Your task to perform on an android device: open chrome and create a bookmark for the current page Image 0: 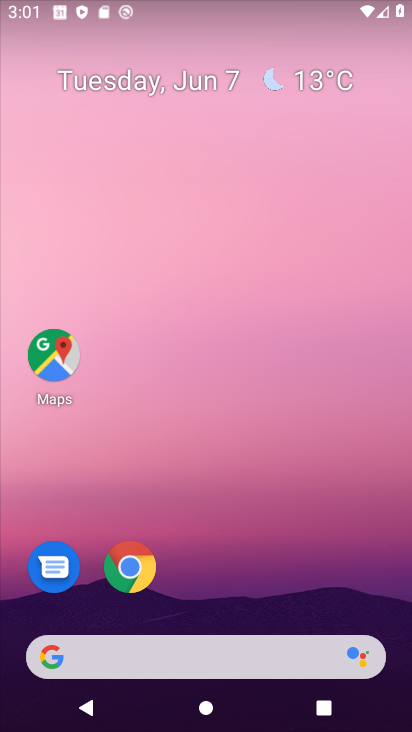
Step 0: click (139, 573)
Your task to perform on an android device: open chrome and create a bookmark for the current page Image 1: 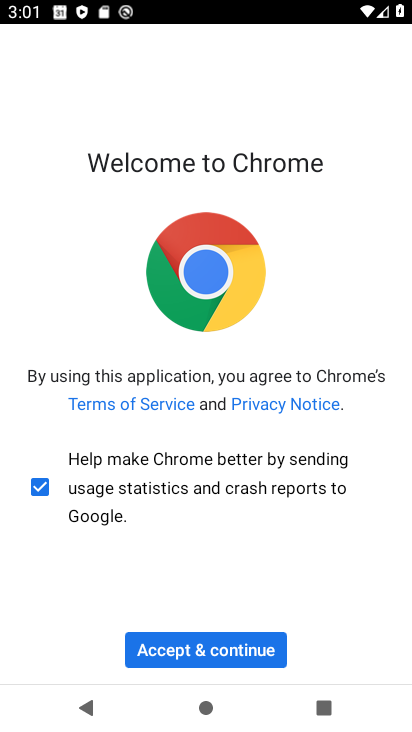
Step 1: click (201, 639)
Your task to perform on an android device: open chrome and create a bookmark for the current page Image 2: 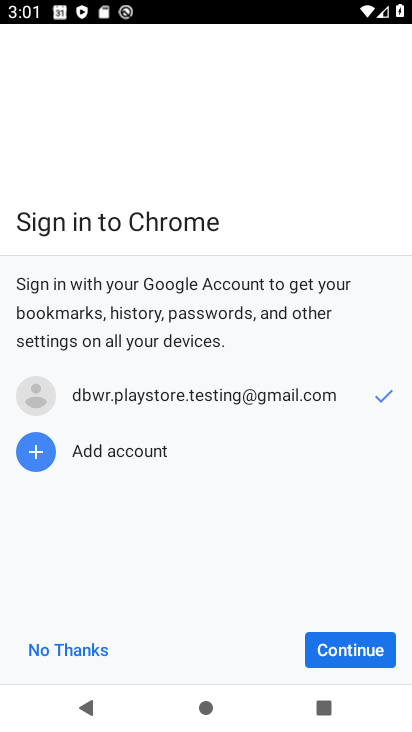
Step 2: click (357, 652)
Your task to perform on an android device: open chrome and create a bookmark for the current page Image 3: 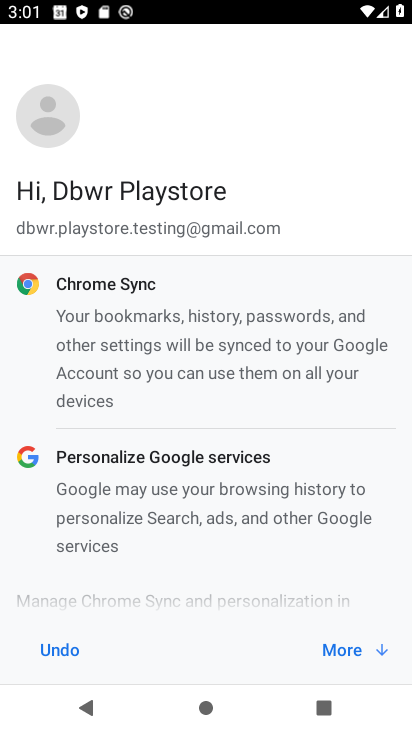
Step 3: click (357, 648)
Your task to perform on an android device: open chrome and create a bookmark for the current page Image 4: 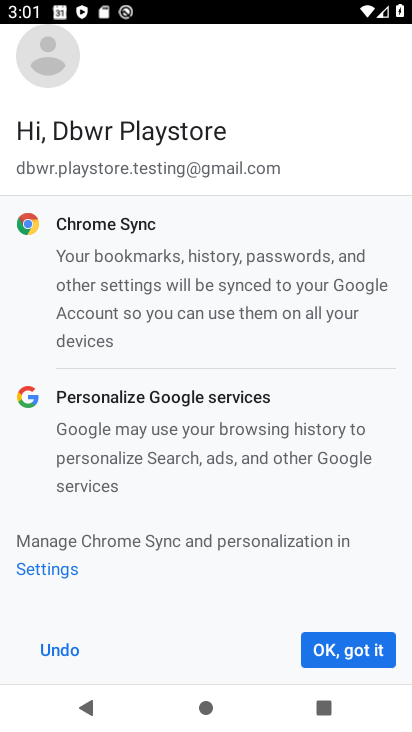
Step 4: click (357, 648)
Your task to perform on an android device: open chrome and create a bookmark for the current page Image 5: 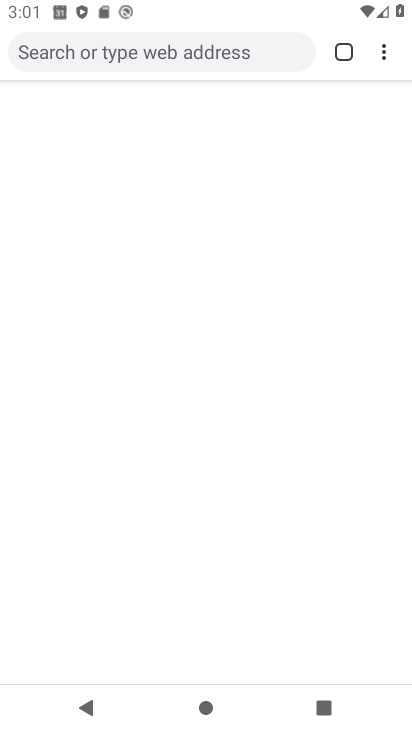
Step 5: task complete